Your task to perform on an android device: set the timer Image 0: 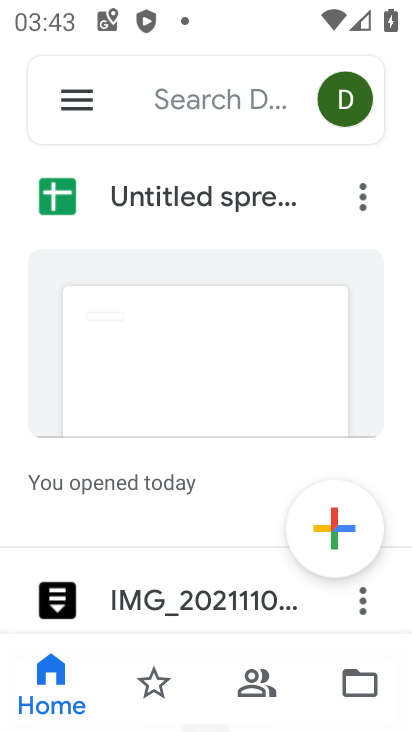
Step 0: press home button
Your task to perform on an android device: set the timer Image 1: 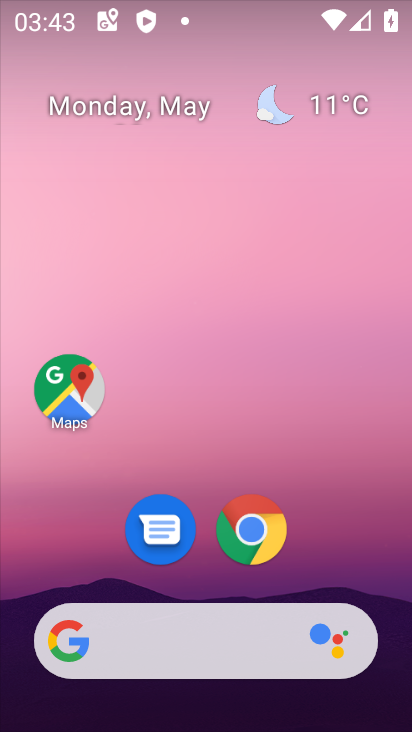
Step 1: drag from (346, 528) to (223, 121)
Your task to perform on an android device: set the timer Image 2: 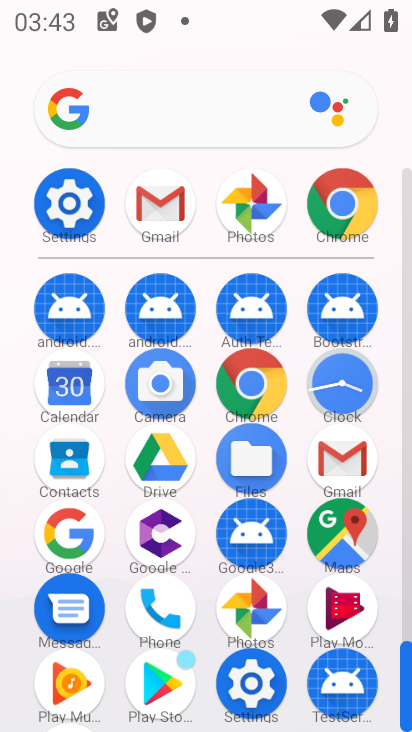
Step 2: click (356, 376)
Your task to perform on an android device: set the timer Image 3: 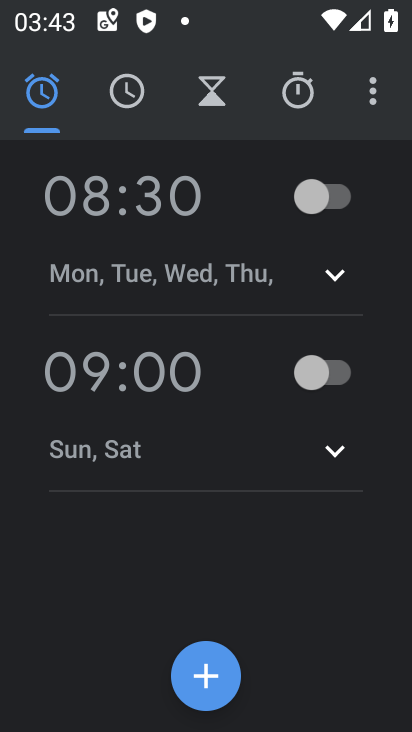
Step 3: click (213, 104)
Your task to perform on an android device: set the timer Image 4: 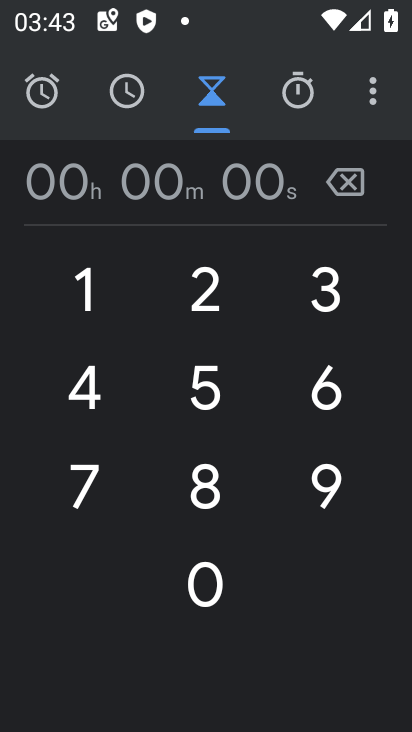
Step 4: click (234, 367)
Your task to perform on an android device: set the timer Image 5: 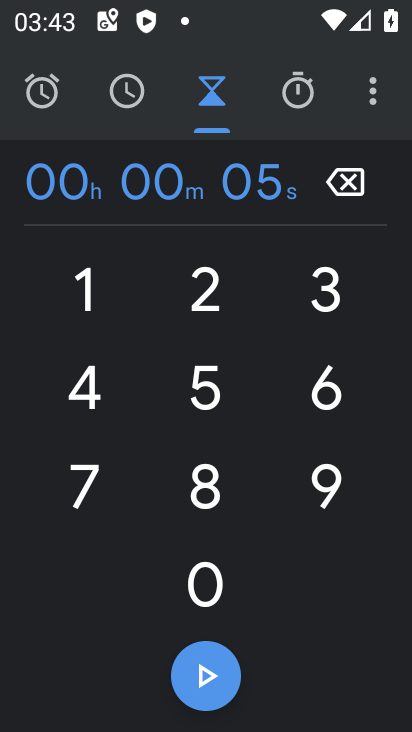
Step 5: task complete